Your task to perform on an android device: open app "Nova Launcher" Image 0: 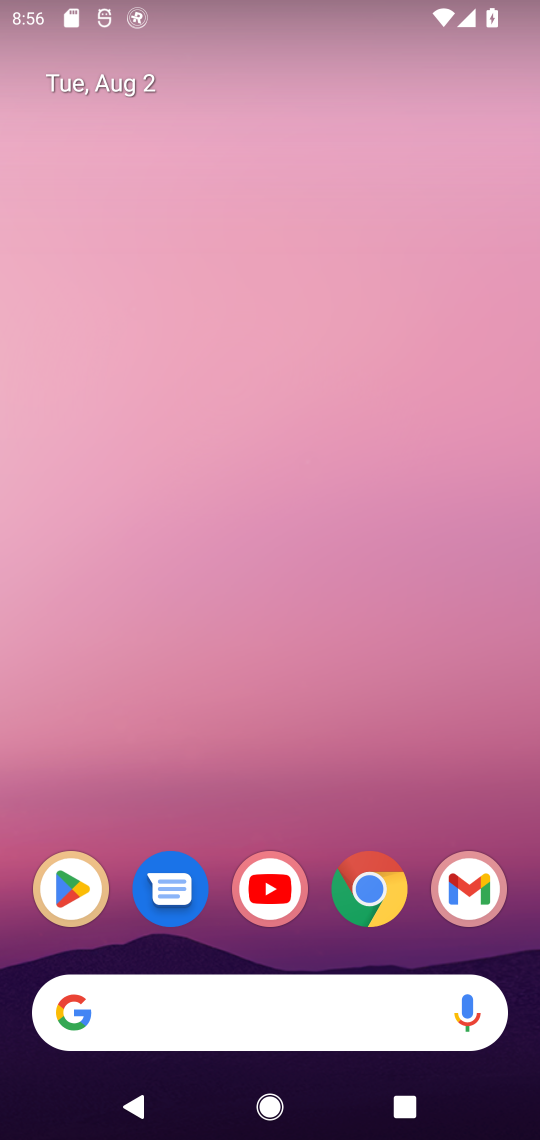
Step 0: press home button
Your task to perform on an android device: open app "Nova Launcher" Image 1: 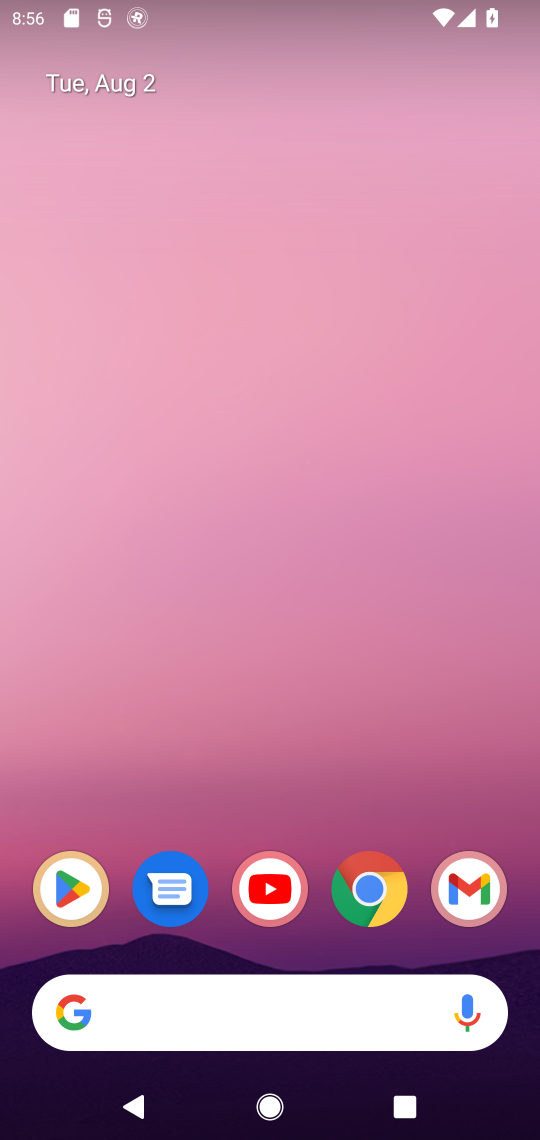
Step 1: click (76, 881)
Your task to perform on an android device: open app "Nova Launcher" Image 2: 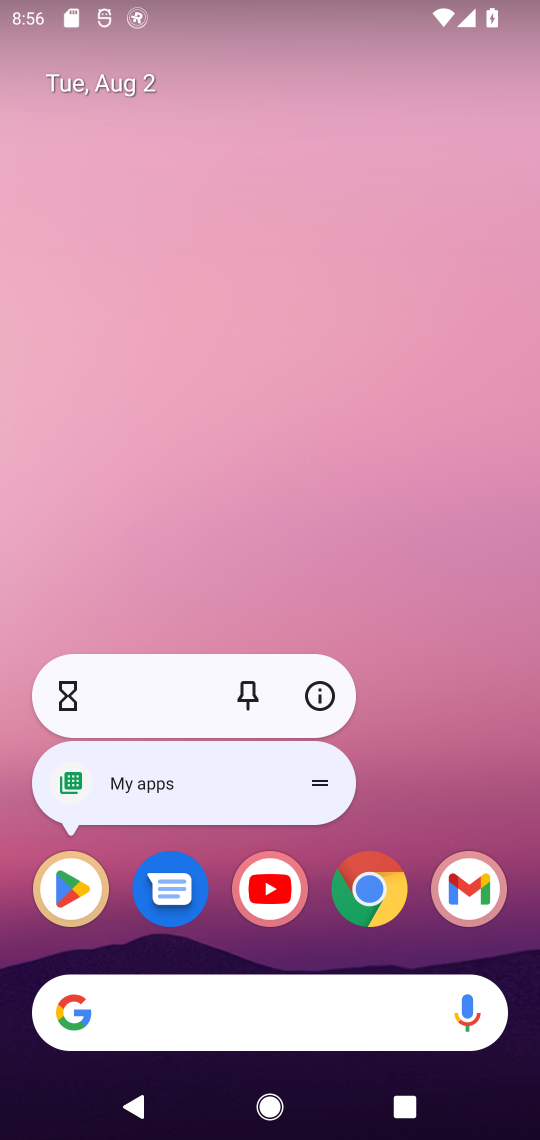
Step 2: click (61, 888)
Your task to perform on an android device: open app "Nova Launcher" Image 3: 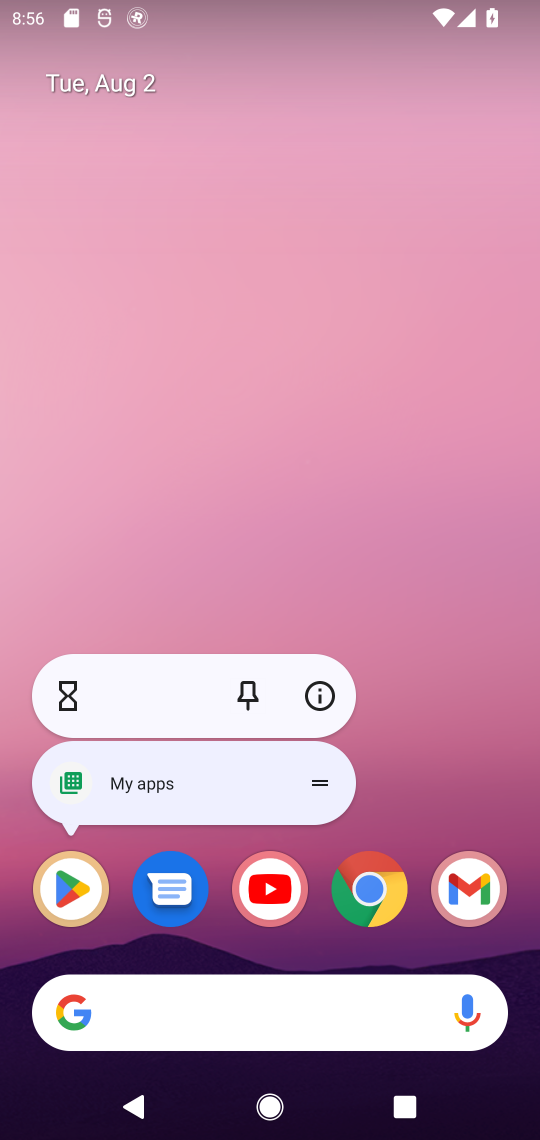
Step 3: click (61, 888)
Your task to perform on an android device: open app "Nova Launcher" Image 4: 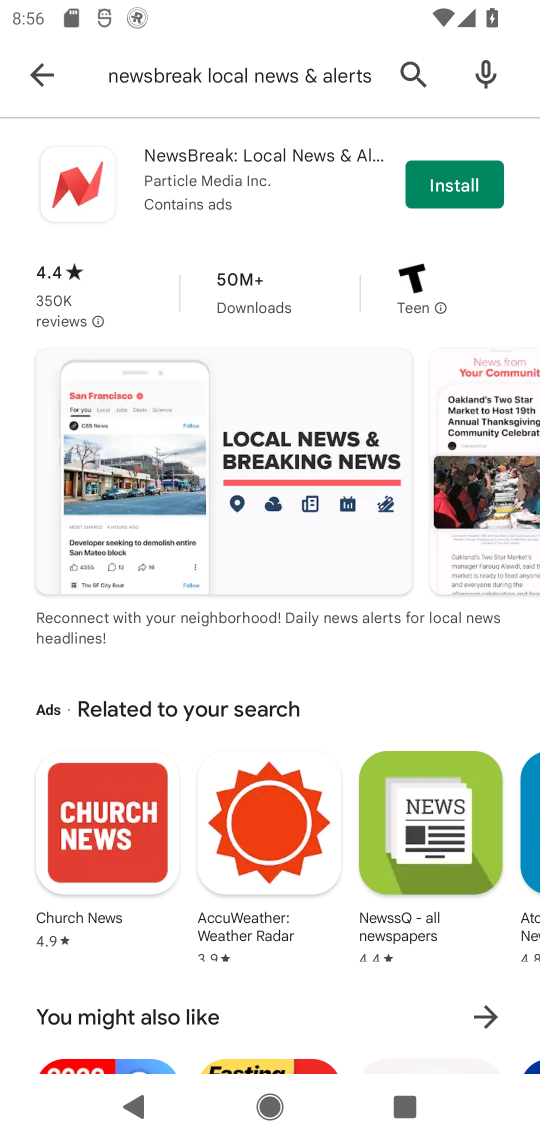
Step 4: click (409, 69)
Your task to perform on an android device: open app "Nova Launcher" Image 5: 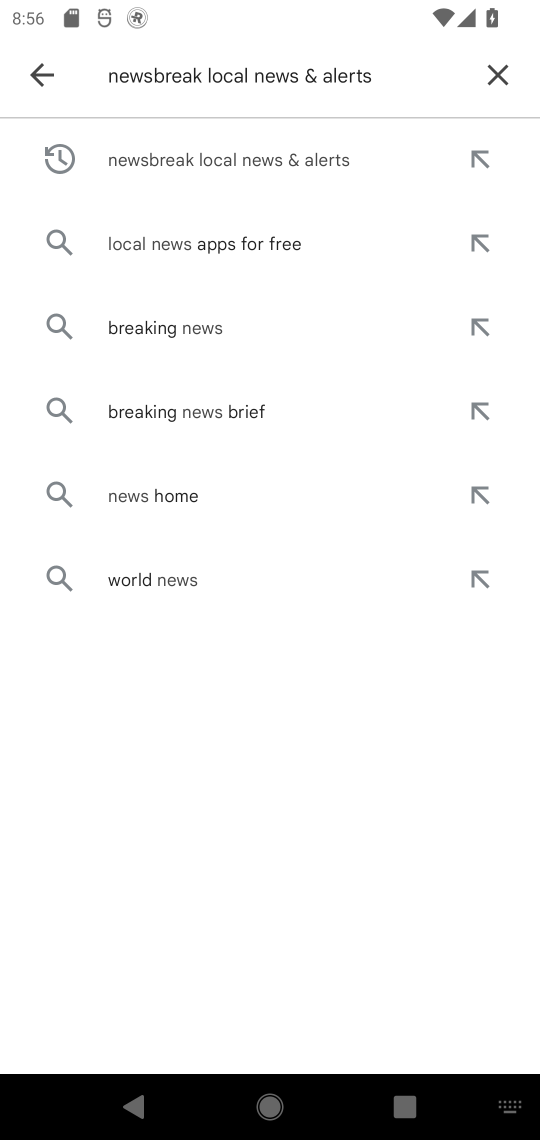
Step 5: click (498, 71)
Your task to perform on an android device: open app "Nova Launcher" Image 6: 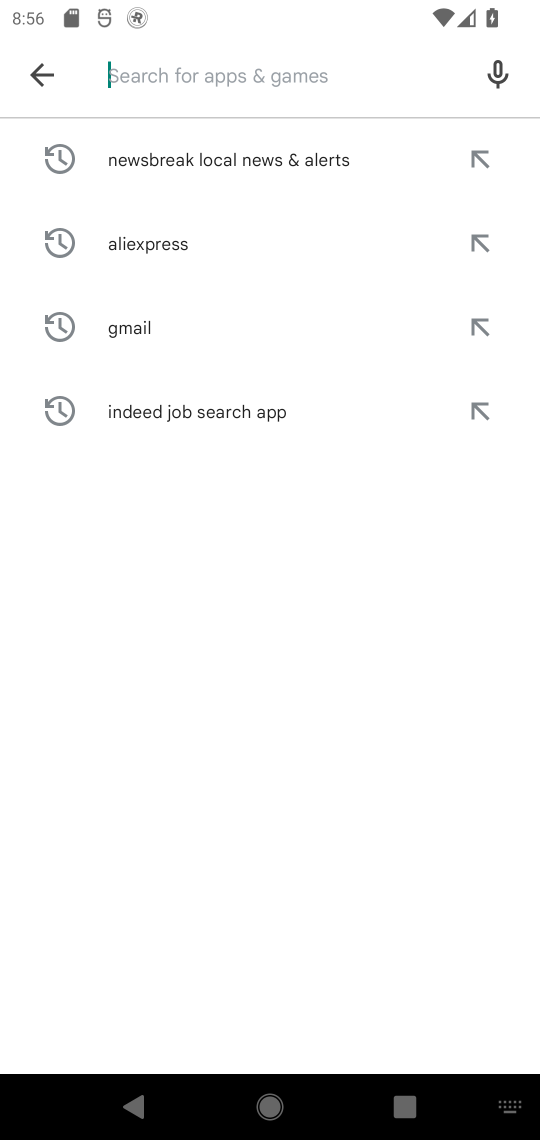
Step 6: type "Nova Launcher"
Your task to perform on an android device: open app "Nova Launcher" Image 7: 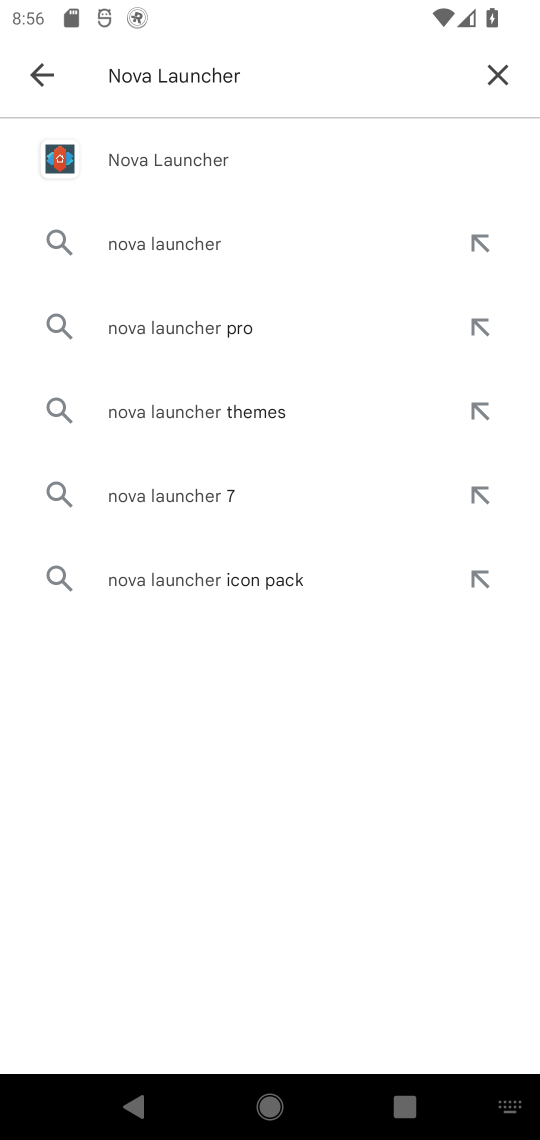
Step 7: click (186, 162)
Your task to perform on an android device: open app "Nova Launcher" Image 8: 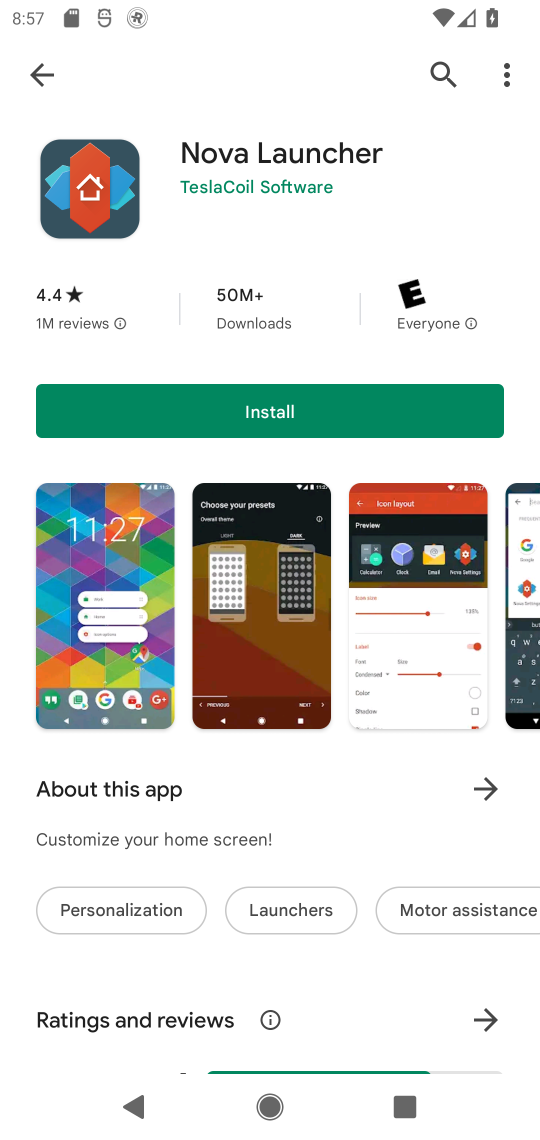
Step 8: task complete